Your task to perform on an android device: stop showing notifications on the lock screen Image 0: 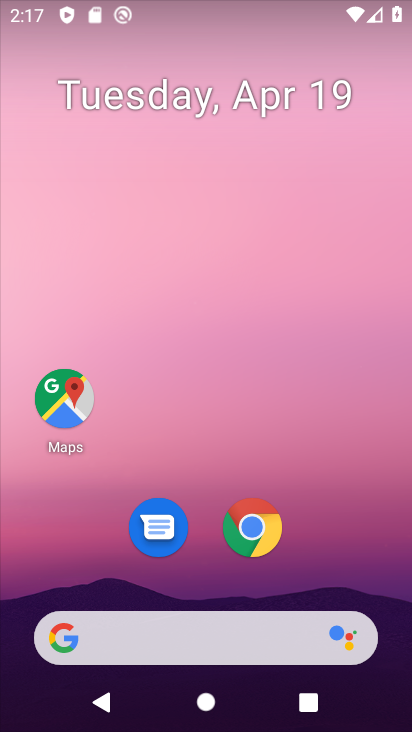
Step 0: drag from (240, 596) to (299, 168)
Your task to perform on an android device: stop showing notifications on the lock screen Image 1: 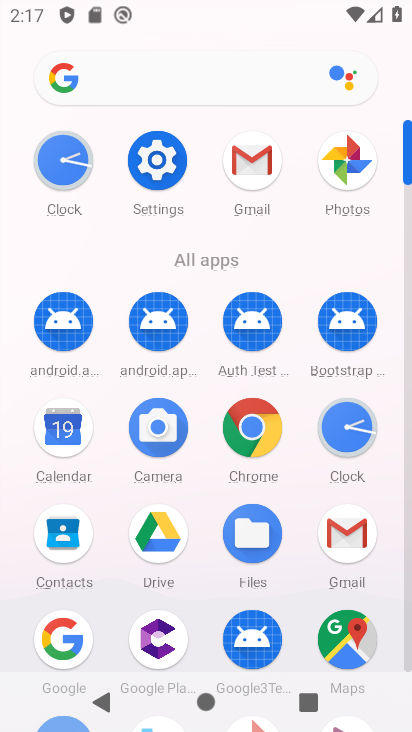
Step 1: click (161, 137)
Your task to perform on an android device: stop showing notifications on the lock screen Image 2: 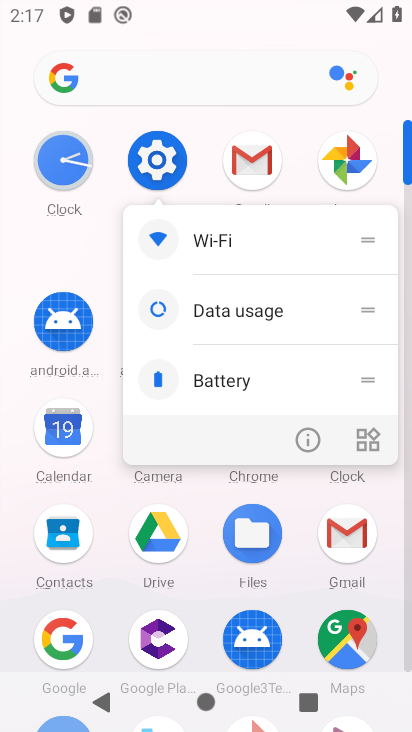
Step 2: click (164, 159)
Your task to perform on an android device: stop showing notifications on the lock screen Image 3: 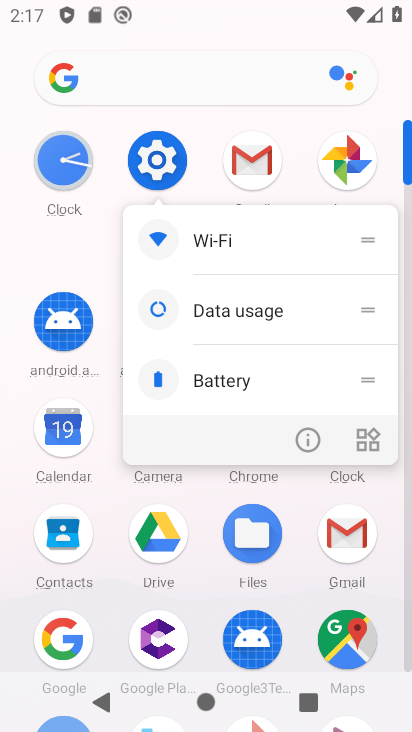
Step 3: click (154, 148)
Your task to perform on an android device: stop showing notifications on the lock screen Image 4: 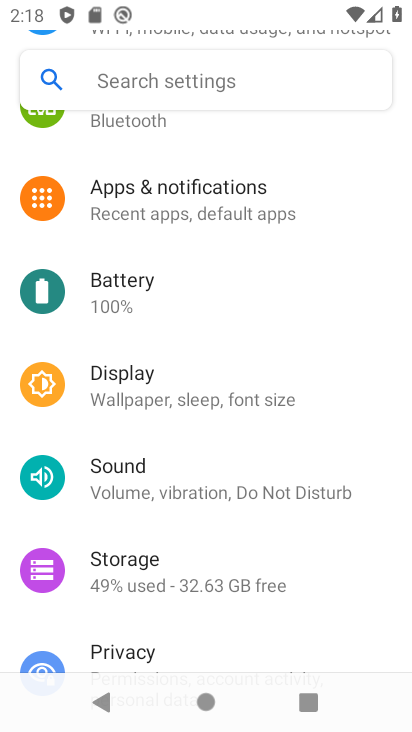
Step 4: click (130, 651)
Your task to perform on an android device: stop showing notifications on the lock screen Image 5: 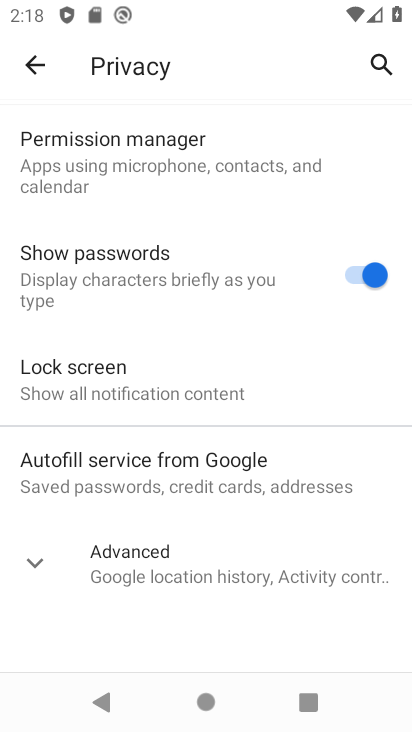
Step 5: click (118, 381)
Your task to perform on an android device: stop showing notifications on the lock screen Image 6: 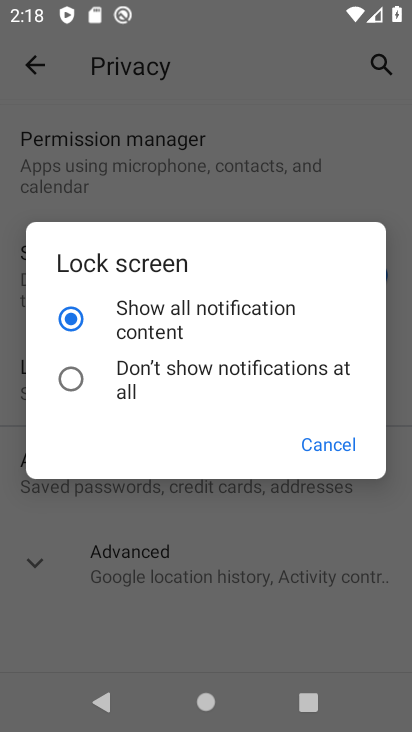
Step 6: click (129, 361)
Your task to perform on an android device: stop showing notifications on the lock screen Image 7: 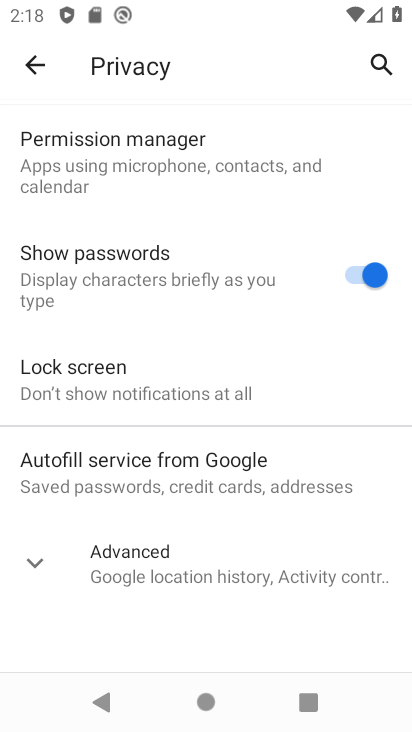
Step 7: task complete